Your task to perform on an android device: Do I have any events today? Image 0: 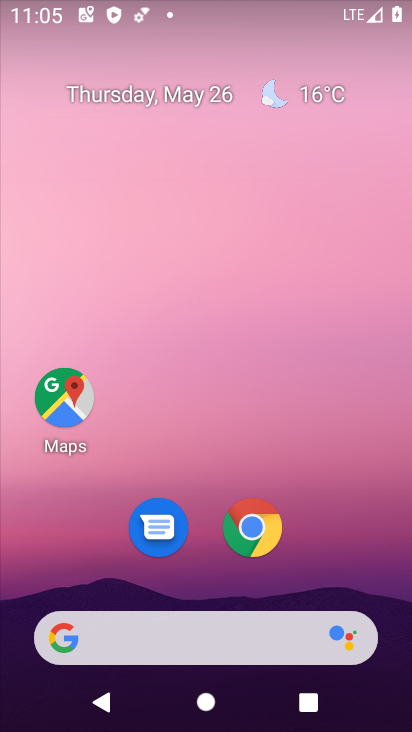
Step 0: drag from (203, 570) to (231, 3)
Your task to perform on an android device: Do I have any events today? Image 1: 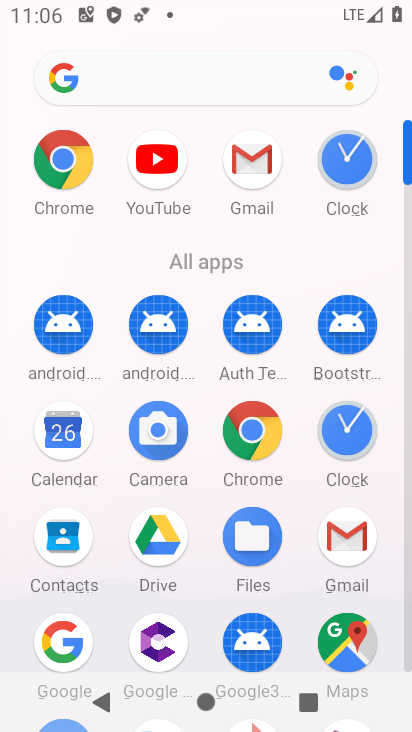
Step 1: click (54, 433)
Your task to perform on an android device: Do I have any events today? Image 2: 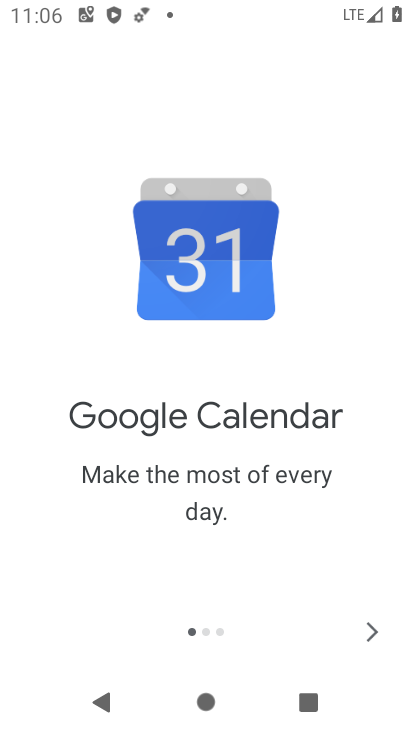
Step 2: click (384, 638)
Your task to perform on an android device: Do I have any events today? Image 3: 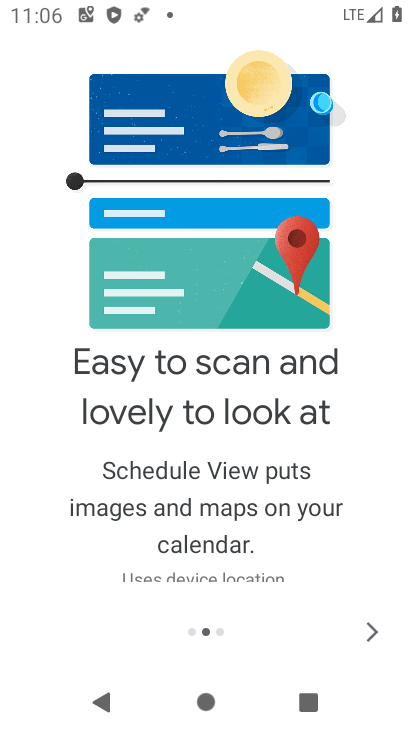
Step 3: click (382, 636)
Your task to perform on an android device: Do I have any events today? Image 4: 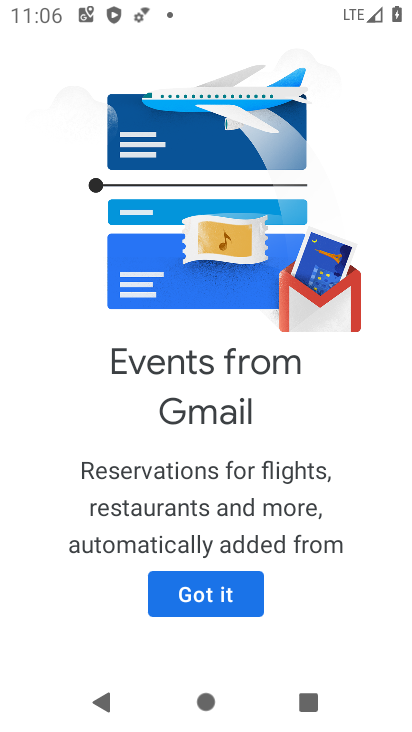
Step 4: click (194, 606)
Your task to perform on an android device: Do I have any events today? Image 5: 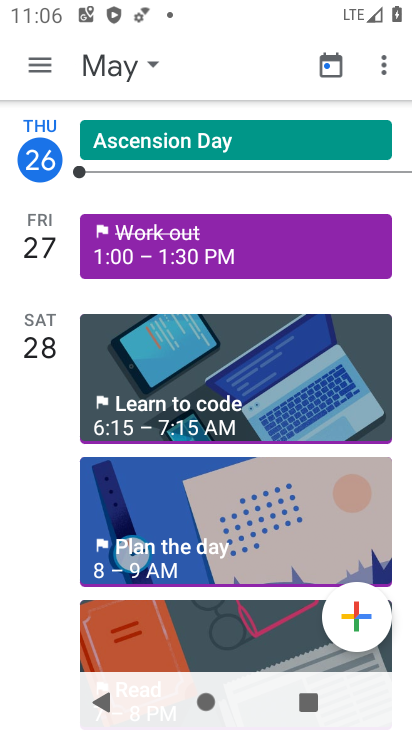
Step 5: click (104, 71)
Your task to perform on an android device: Do I have any events today? Image 6: 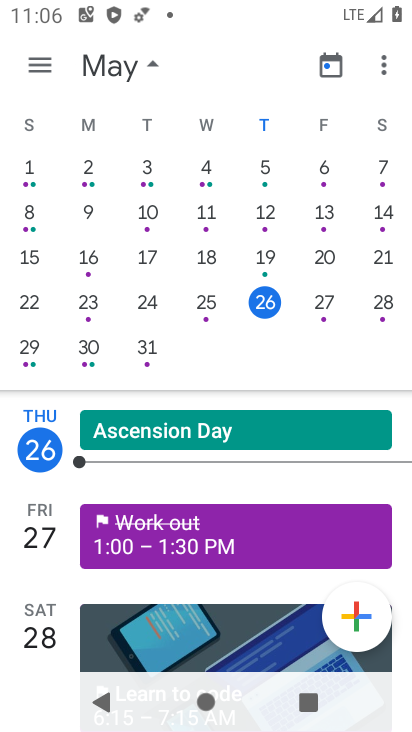
Step 6: click (260, 310)
Your task to perform on an android device: Do I have any events today? Image 7: 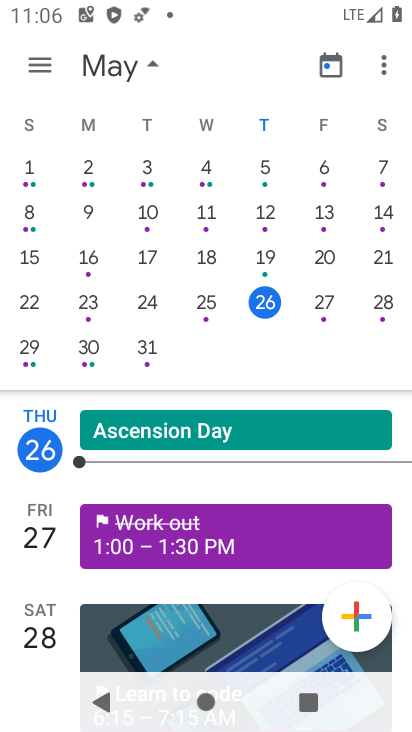
Step 7: task complete